Your task to perform on an android device: set default search engine in the chrome app Image 0: 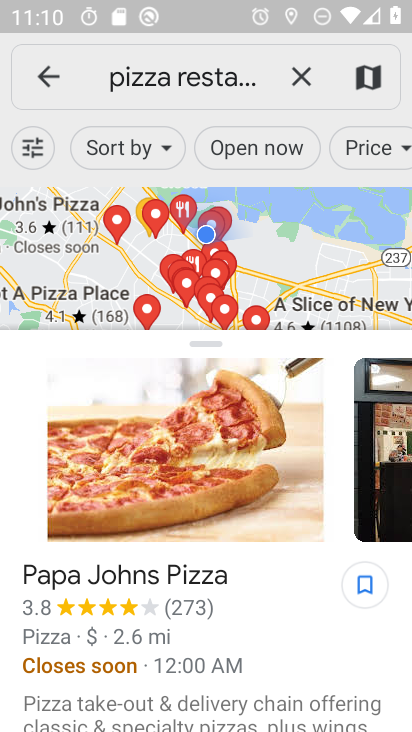
Step 0: press home button
Your task to perform on an android device: set default search engine in the chrome app Image 1: 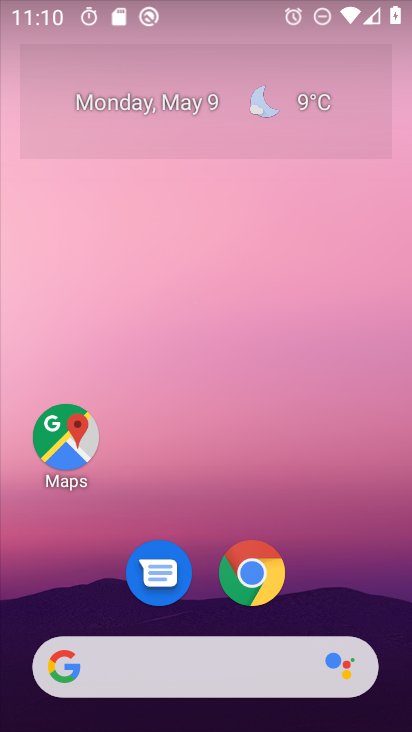
Step 1: drag from (384, 567) to (320, 70)
Your task to perform on an android device: set default search engine in the chrome app Image 2: 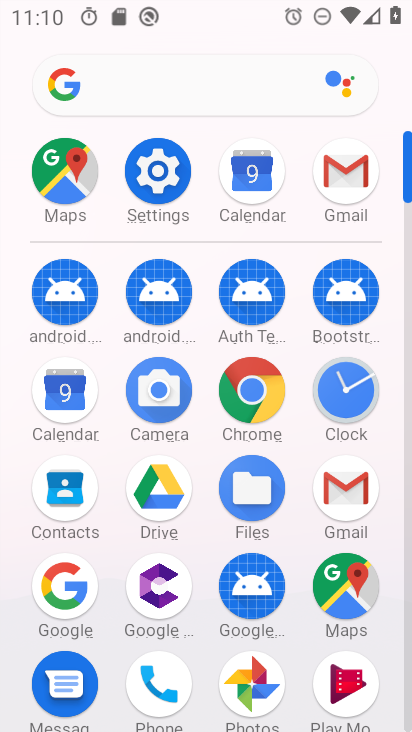
Step 2: click (247, 387)
Your task to perform on an android device: set default search engine in the chrome app Image 3: 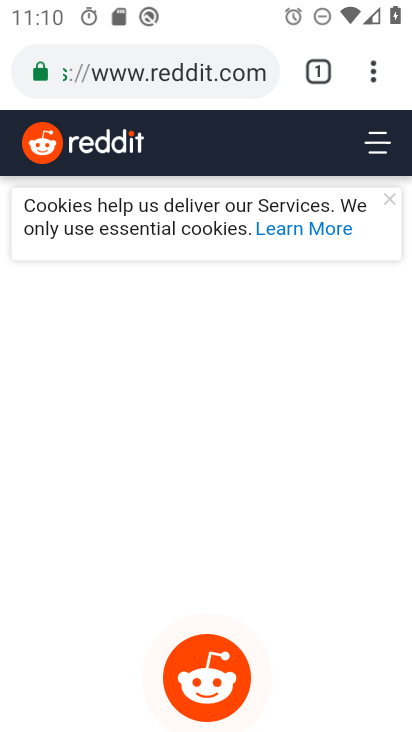
Step 3: drag from (376, 72) to (132, 580)
Your task to perform on an android device: set default search engine in the chrome app Image 4: 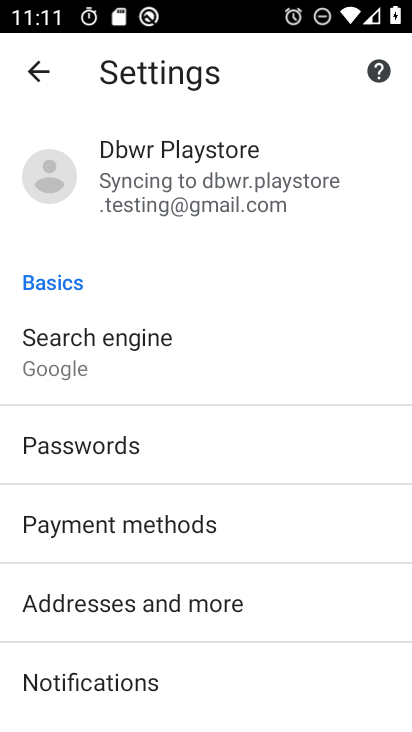
Step 4: drag from (257, 687) to (313, 250)
Your task to perform on an android device: set default search engine in the chrome app Image 5: 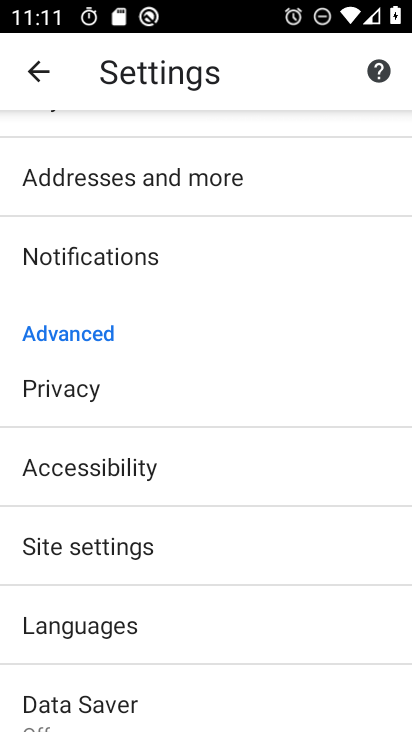
Step 5: drag from (147, 225) to (235, 684)
Your task to perform on an android device: set default search engine in the chrome app Image 6: 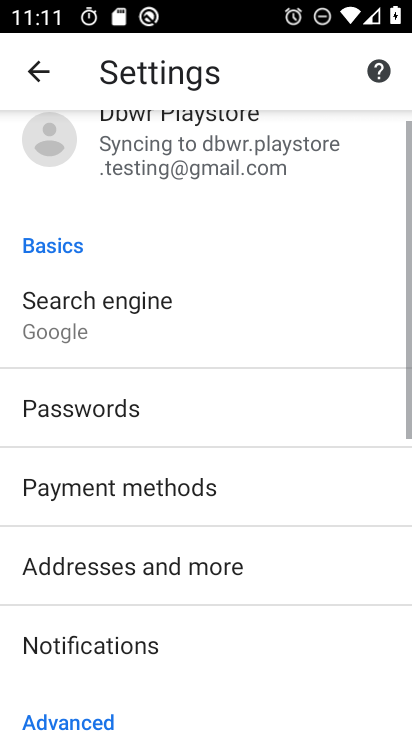
Step 6: click (135, 333)
Your task to perform on an android device: set default search engine in the chrome app Image 7: 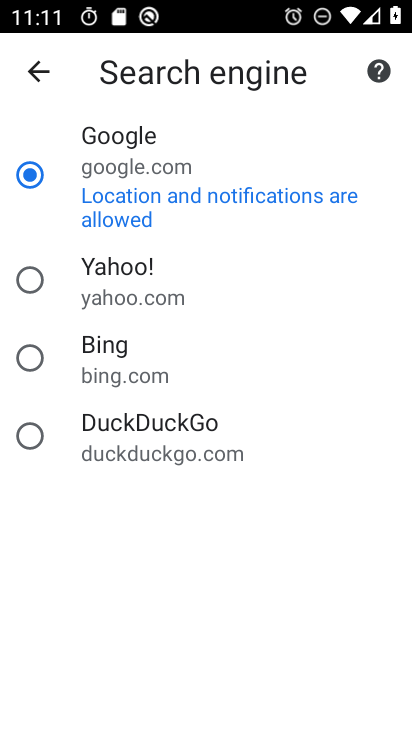
Step 7: task complete